Your task to perform on an android device: Open the calendar and show me this week's events? Image 0: 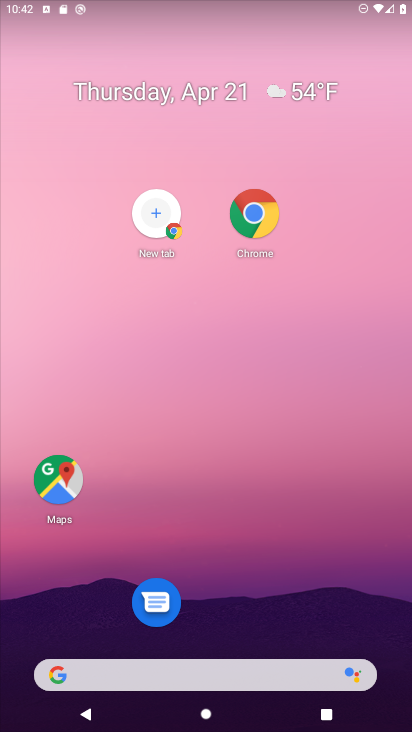
Step 0: click (200, 101)
Your task to perform on an android device: Open the calendar and show me this week's events? Image 1: 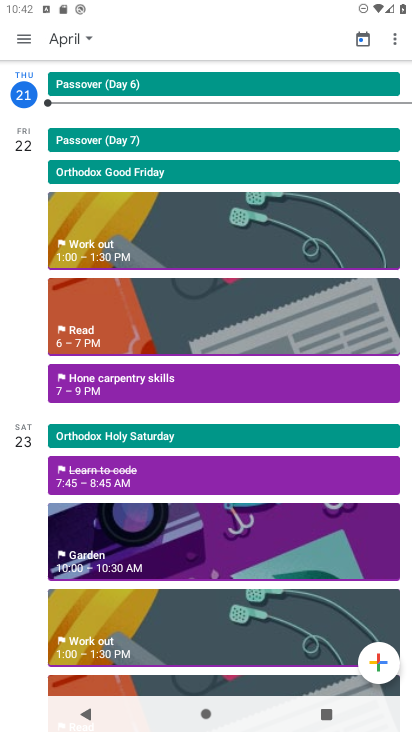
Step 1: click (154, 474)
Your task to perform on an android device: Open the calendar and show me this week's events? Image 2: 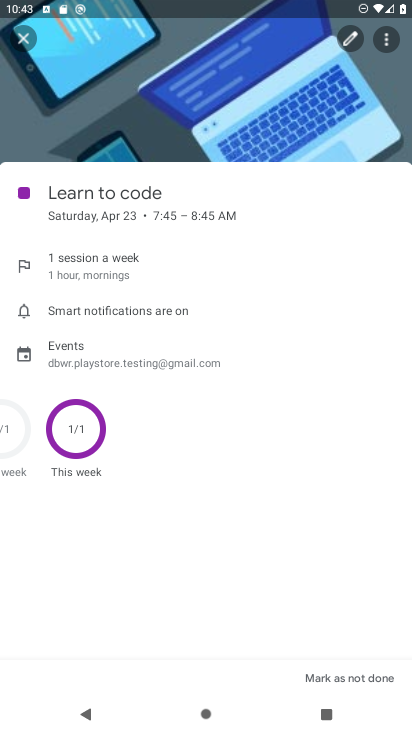
Step 2: task complete